Your task to perform on an android device: Go to Google Image 0: 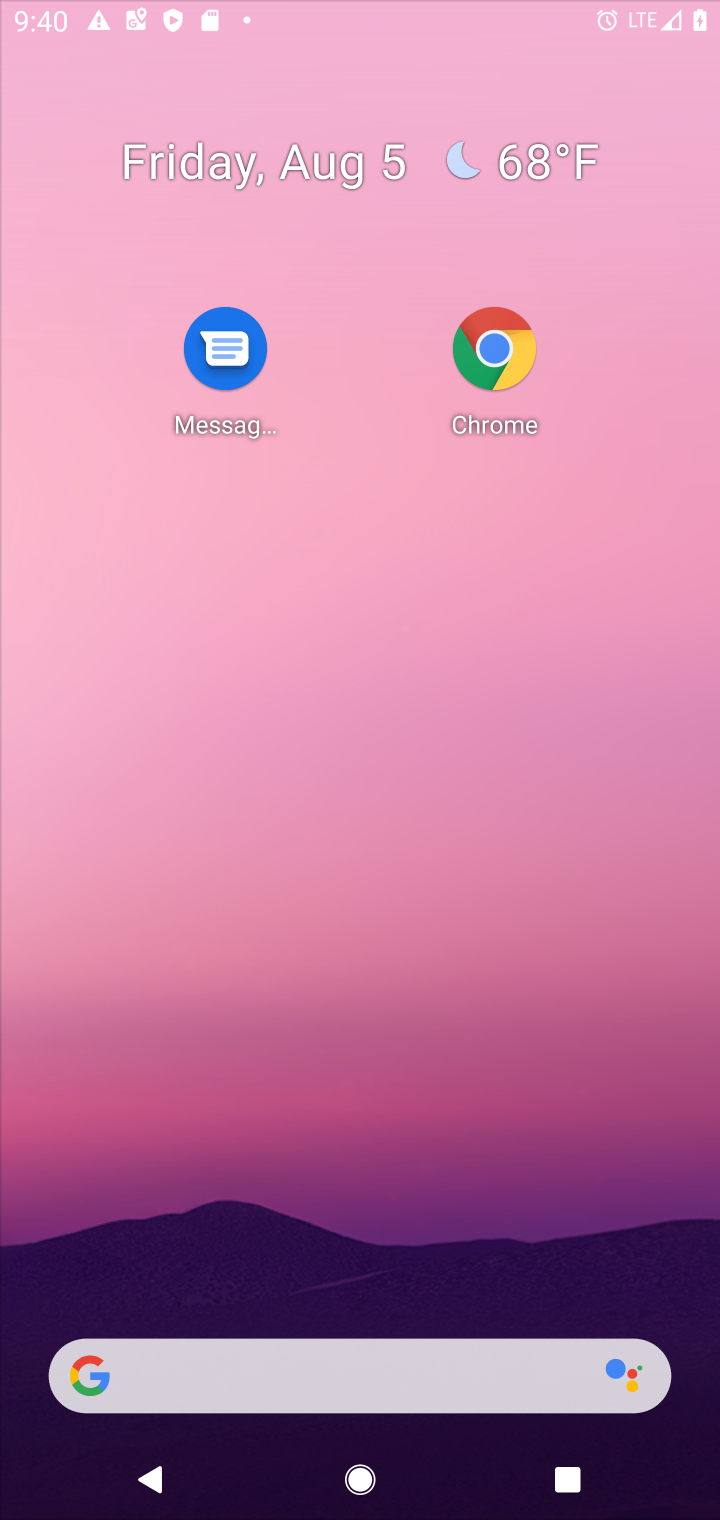
Step 0: press home button
Your task to perform on an android device: Go to Google Image 1: 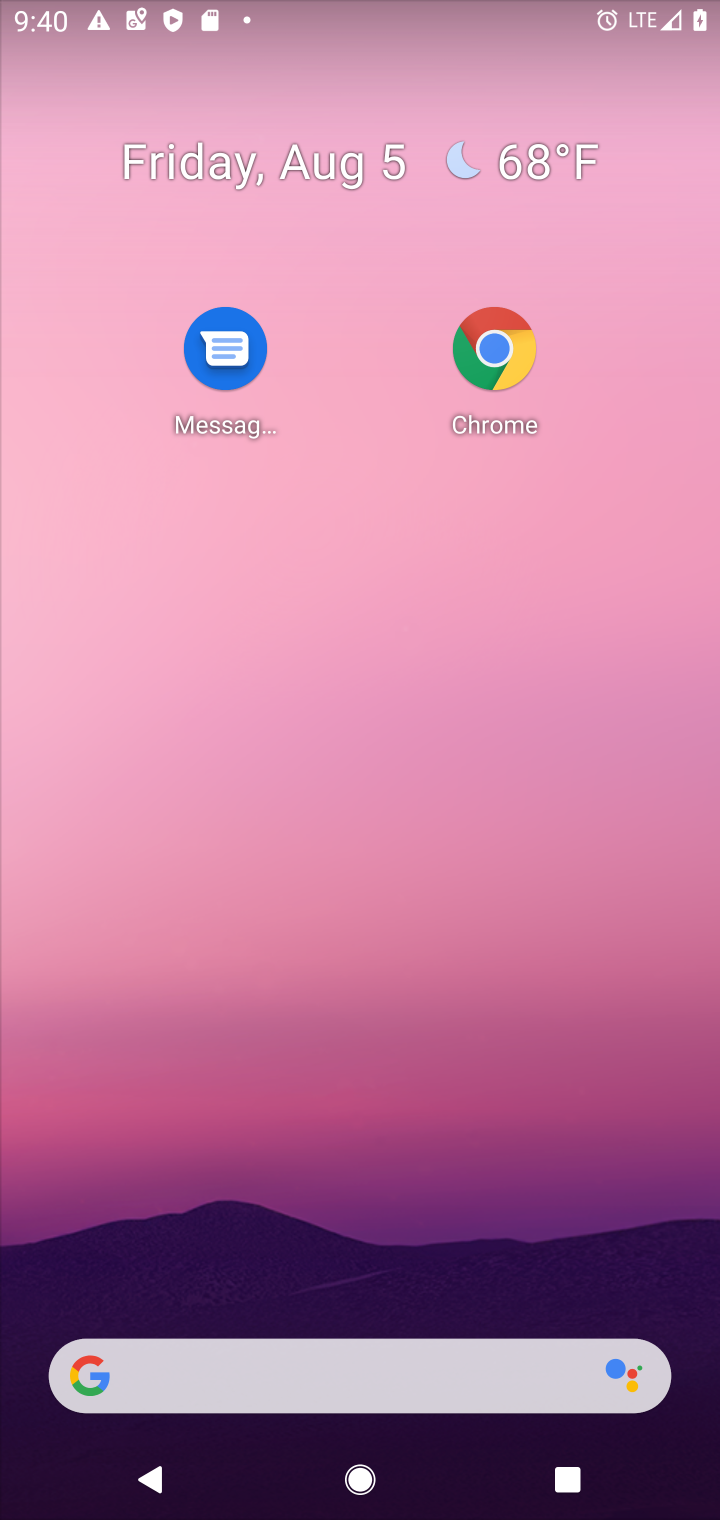
Step 1: drag from (398, 1371) to (392, 490)
Your task to perform on an android device: Go to Google Image 2: 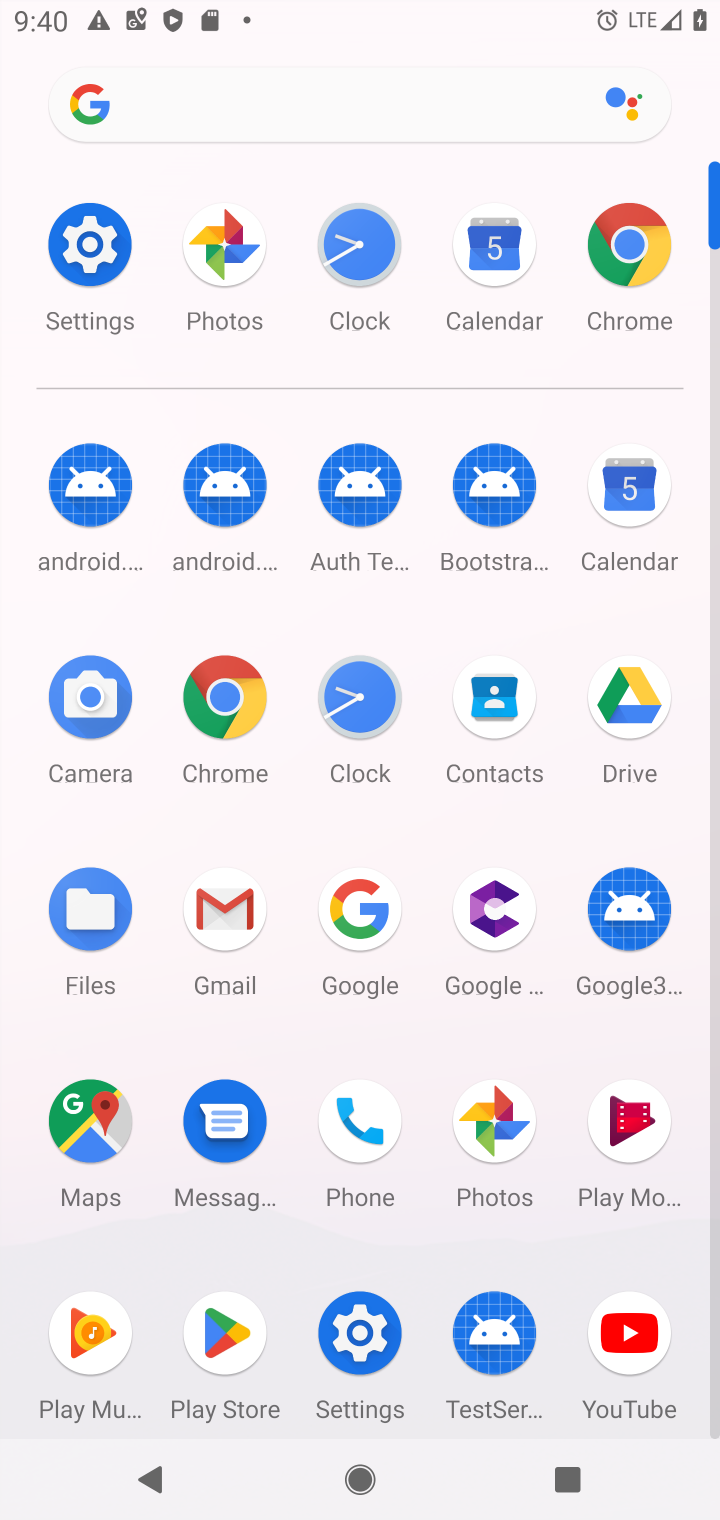
Step 2: click (646, 279)
Your task to perform on an android device: Go to Google Image 3: 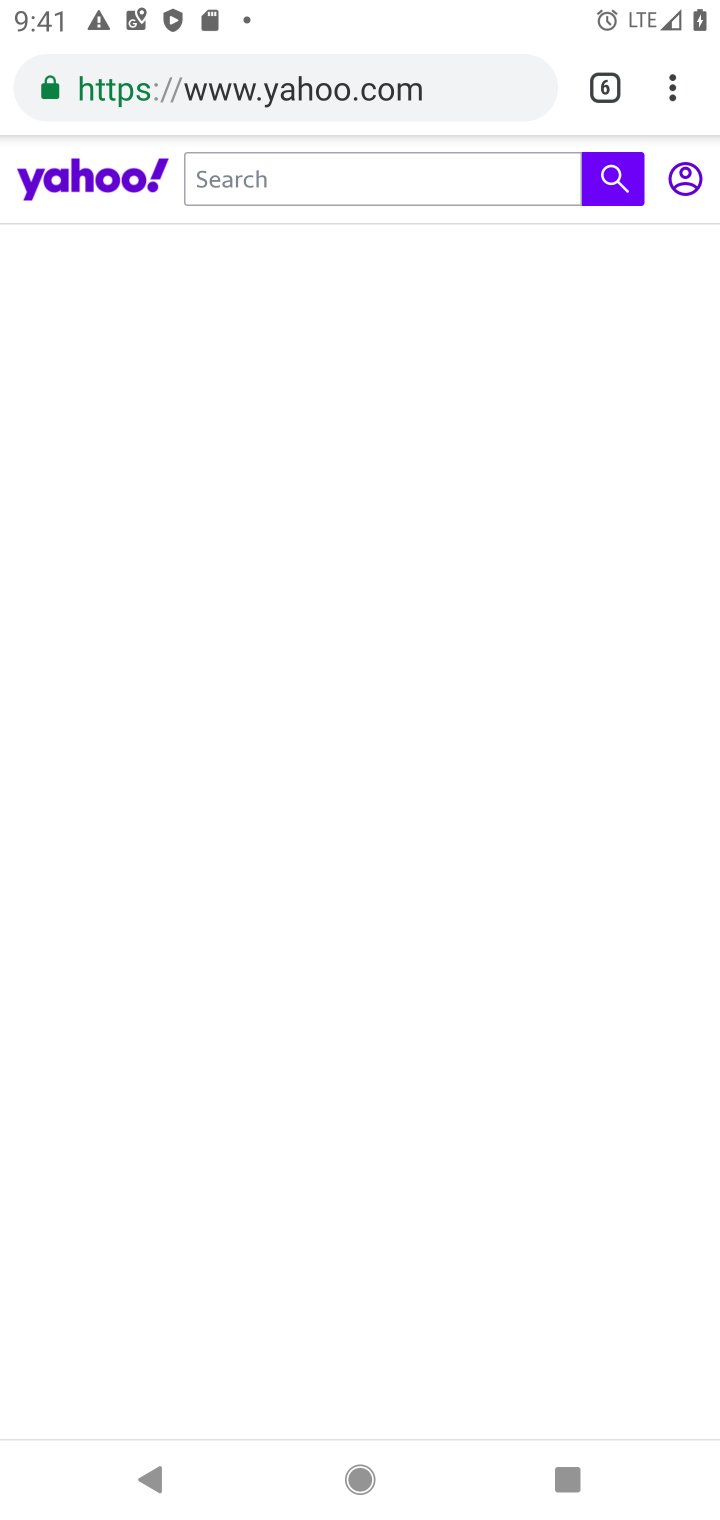
Step 3: click (603, 72)
Your task to perform on an android device: Go to Google Image 4: 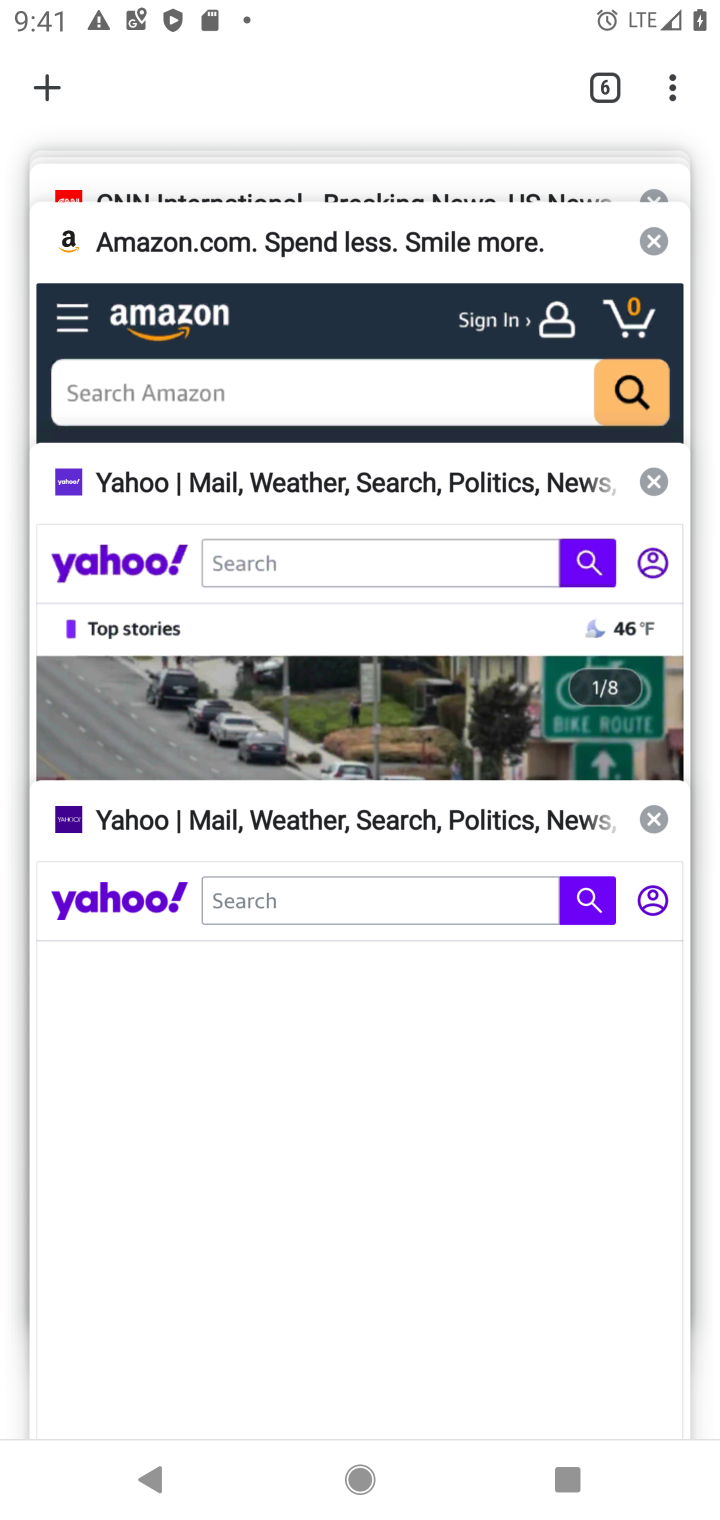
Step 4: click (34, 96)
Your task to perform on an android device: Go to Google Image 5: 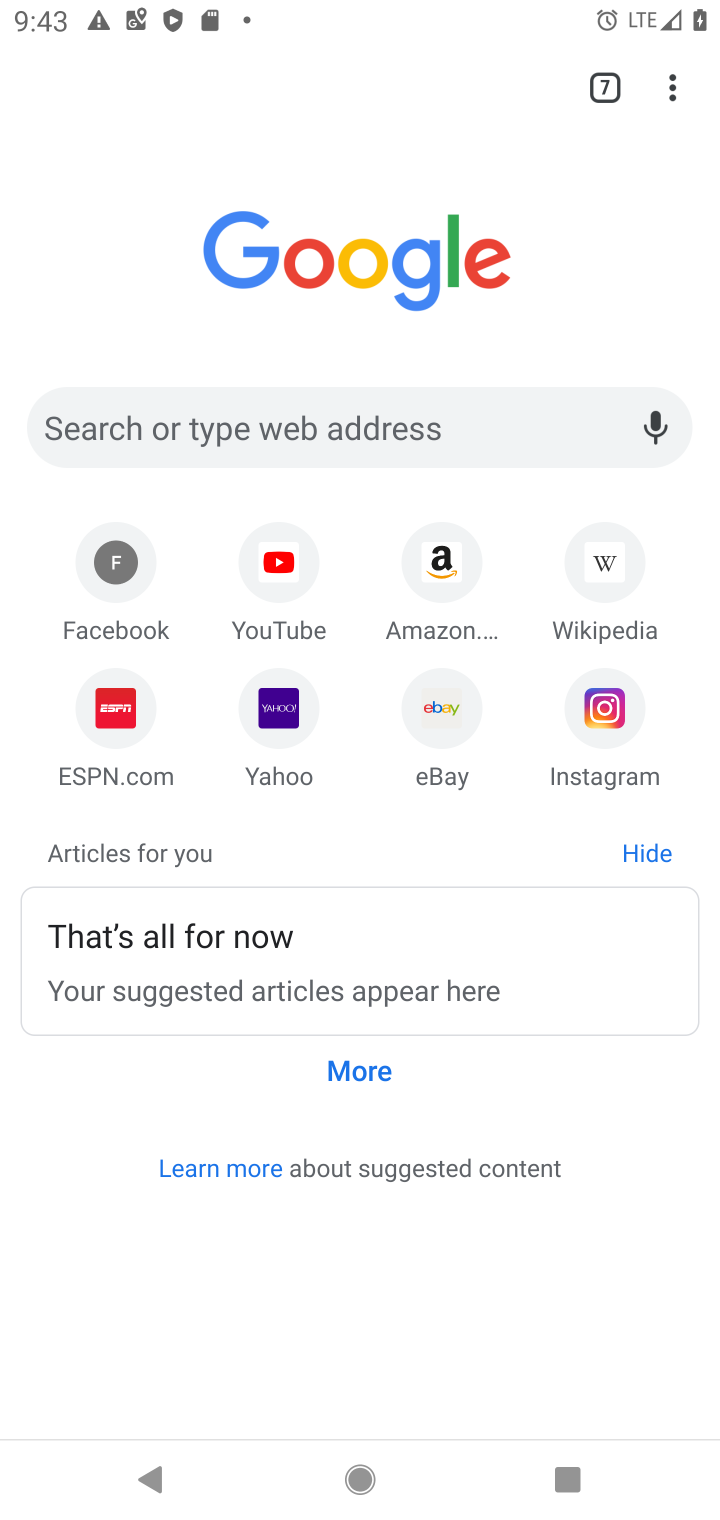
Step 5: task complete